Your task to perform on an android device: Is it going to rain tomorrow? Image 0: 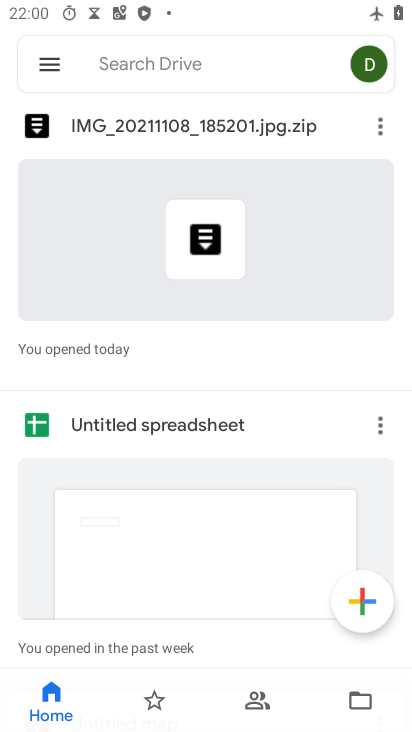
Step 0: press home button
Your task to perform on an android device: Is it going to rain tomorrow? Image 1: 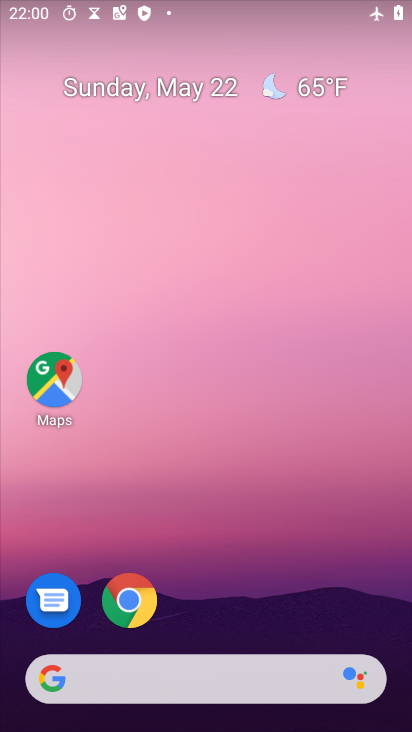
Step 1: click (258, 683)
Your task to perform on an android device: Is it going to rain tomorrow? Image 2: 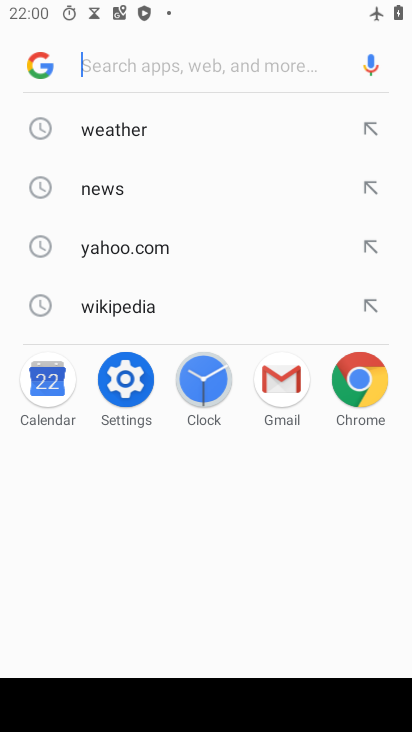
Step 2: click (181, 144)
Your task to perform on an android device: Is it going to rain tomorrow? Image 3: 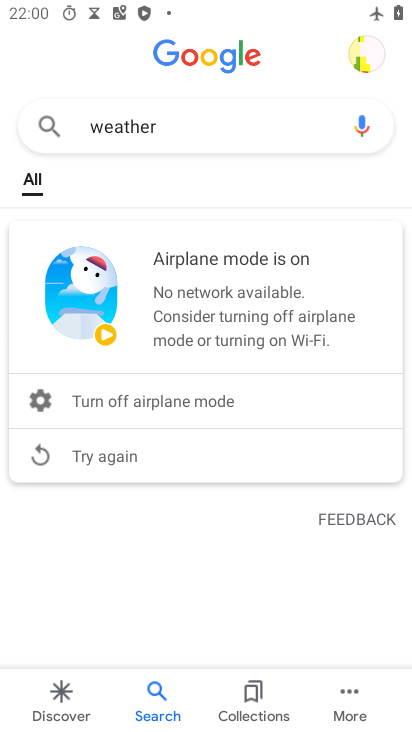
Step 3: task complete